Your task to perform on an android device: turn off notifications in google photos Image 0: 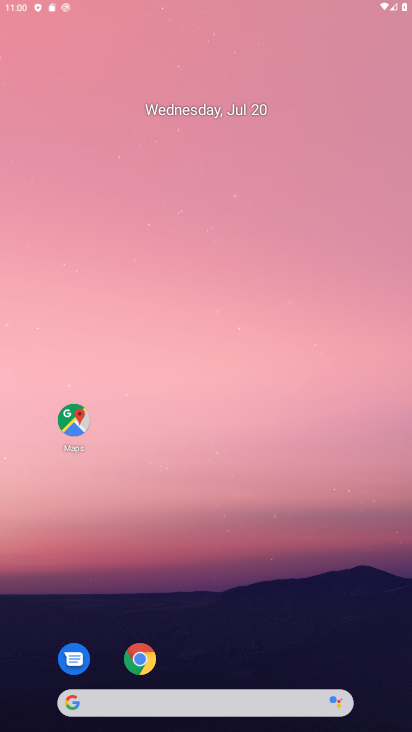
Step 0: drag from (193, 15) to (280, 67)
Your task to perform on an android device: turn off notifications in google photos Image 1: 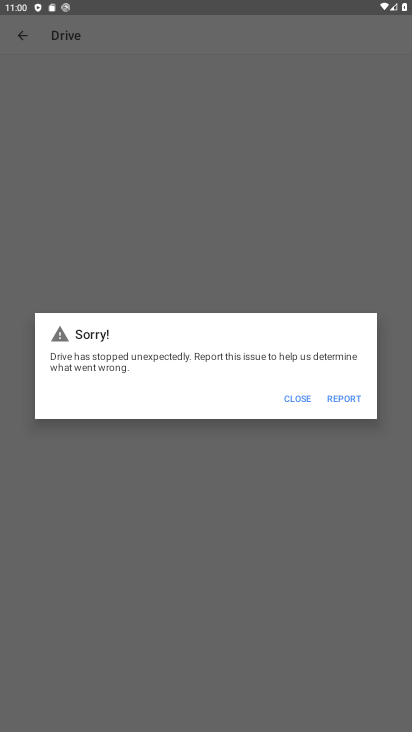
Step 1: press home button
Your task to perform on an android device: turn off notifications in google photos Image 2: 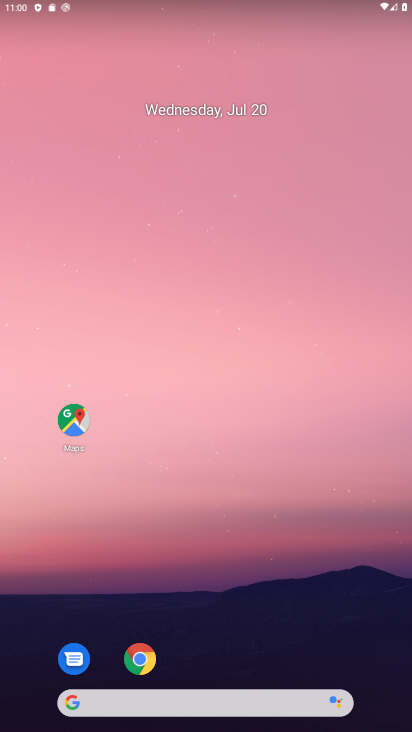
Step 2: drag from (209, 664) to (253, 0)
Your task to perform on an android device: turn off notifications in google photos Image 3: 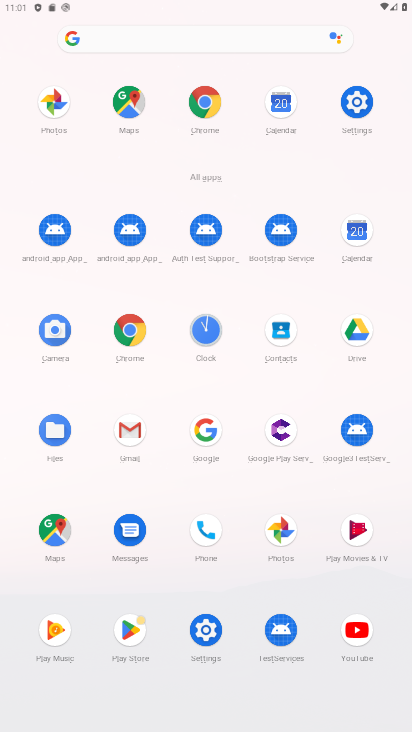
Step 3: click (281, 531)
Your task to perform on an android device: turn off notifications in google photos Image 4: 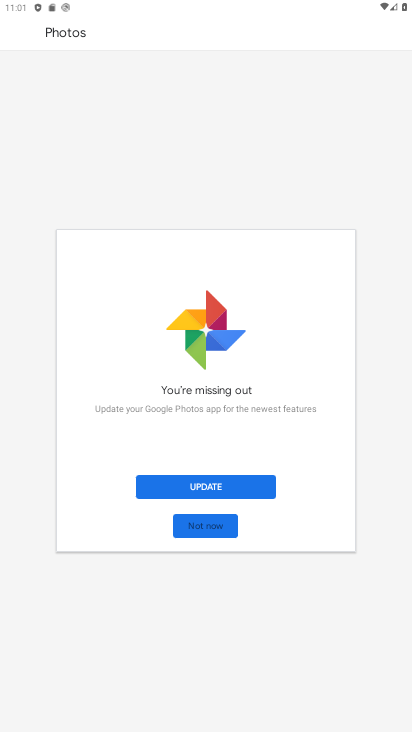
Step 4: click (195, 523)
Your task to perform on an android device: turn off notifications in google photos Image 5: 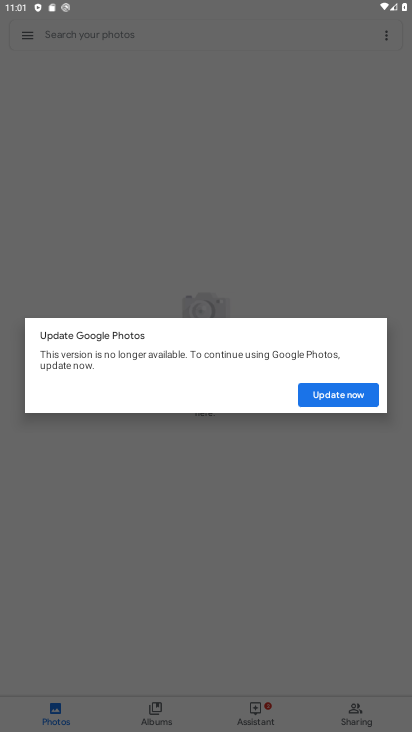
Step 5: click (338, 395)
Your task to perform on an android device: turn off notifications in google photos Image 6: 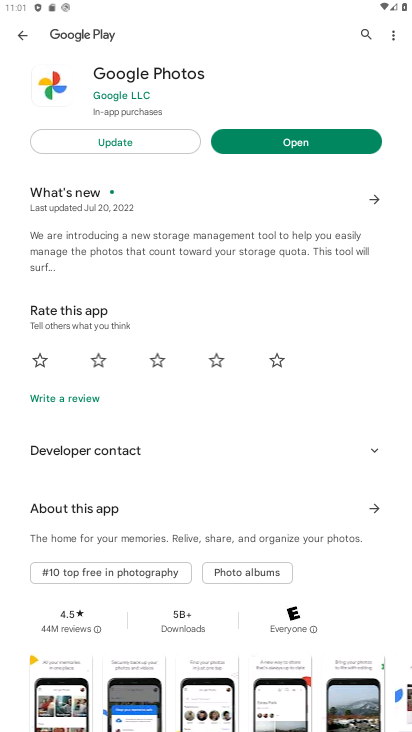
Step 6: click (282, 142)
Your task to perform on an android device: turn off notifications in google photos Image 7: 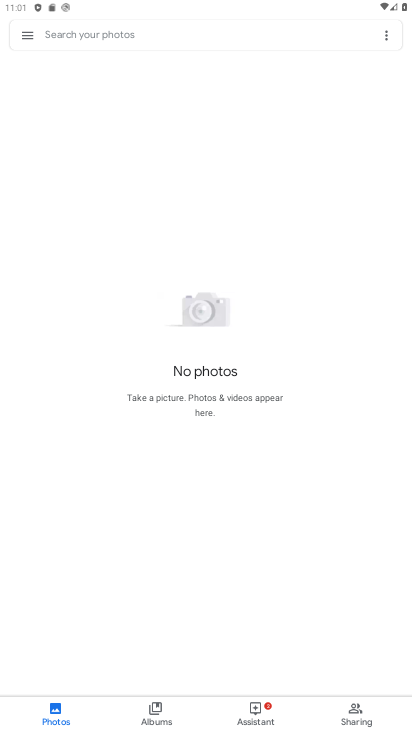
Step 7: click (20, 30)
Your task to perform on an android device: turn off notifications in google photos Image 8: 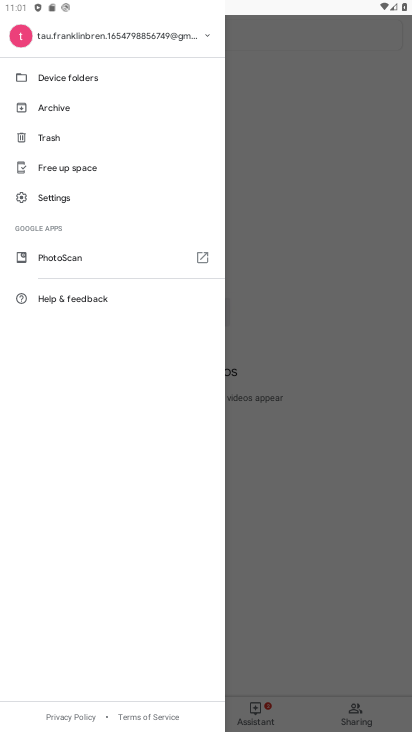
Step 8: click (59, 197)
Your task to perform on an android device: turn off notifications in google photos Image 9: 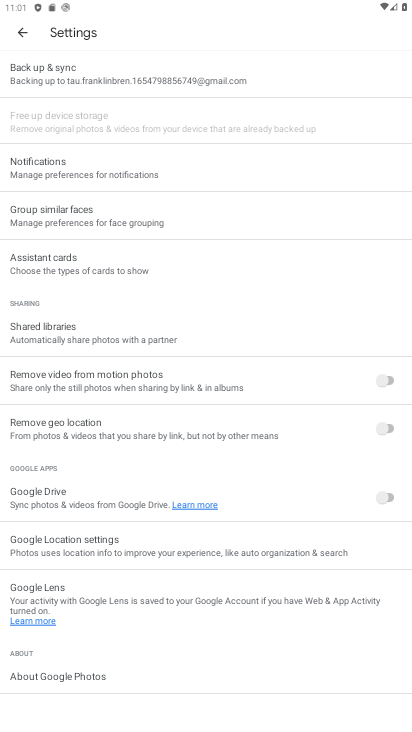
Step 9: click (92, 166)
Your task to perform on an android device: turn off notifications in google photos Image 10: 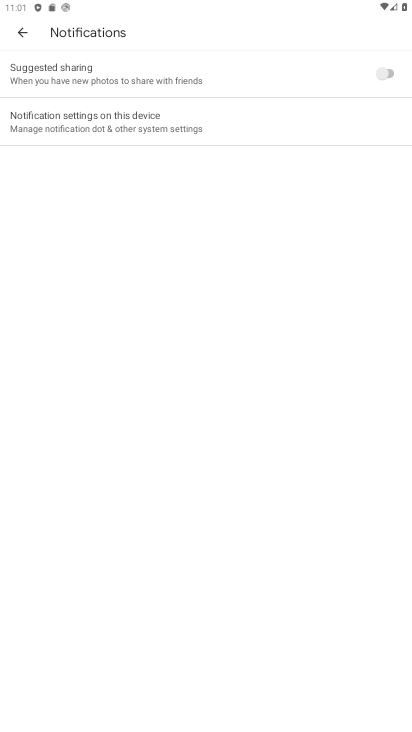
Step 10: click (142, 128)
Your task to perform on an android device: turn off notifications in google photos Image 11: 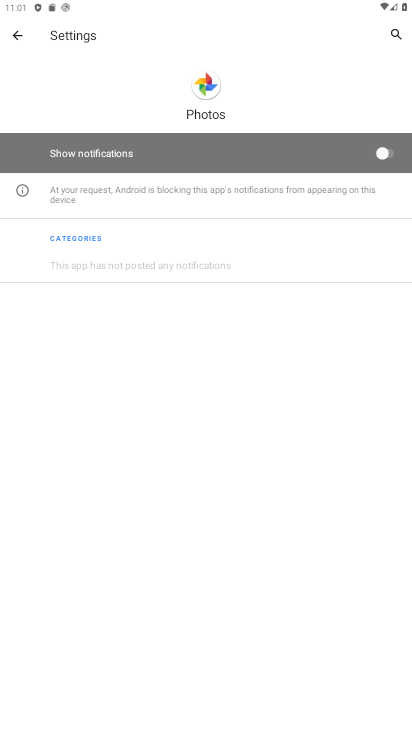
Step 11: task complete